Your task to perform on an android device: Open sound settings Image 0: 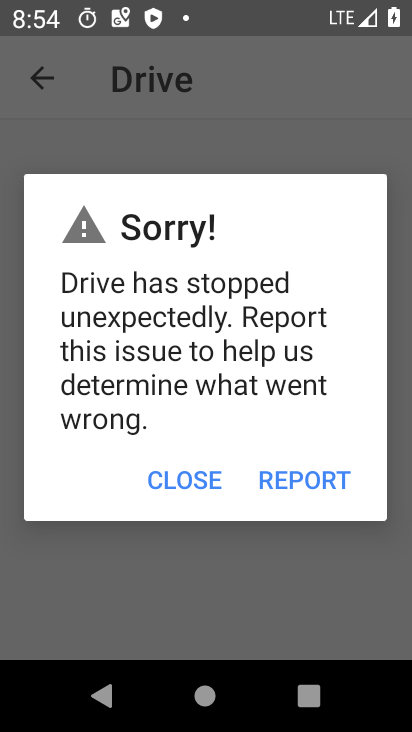
Step 0: press home button
Your task to perform on an android device: Open sound settings Image 1: 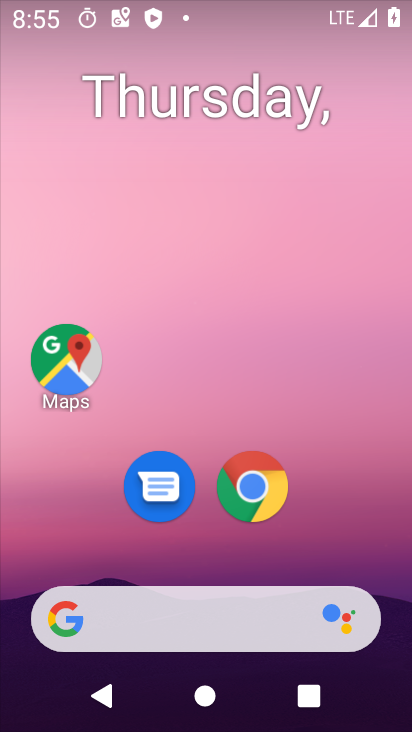
Step 1: drag from (235, 617) to (282, 11)
Your task to perform on an android device: Open sound settings Image 2: 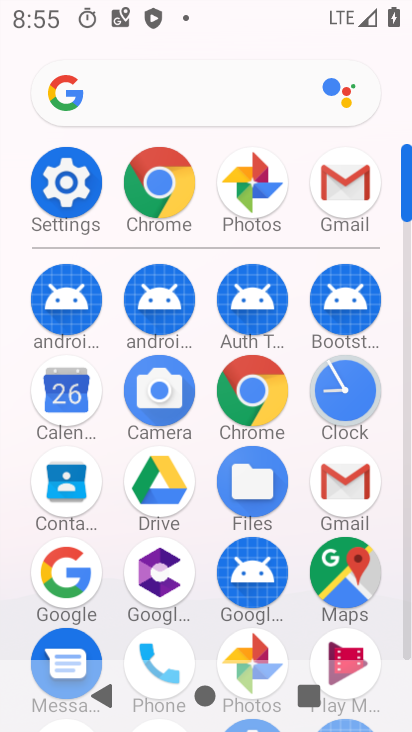
Step 2: click (68, 208)
Your task to perform on an android device: Open sound settings Image 3: 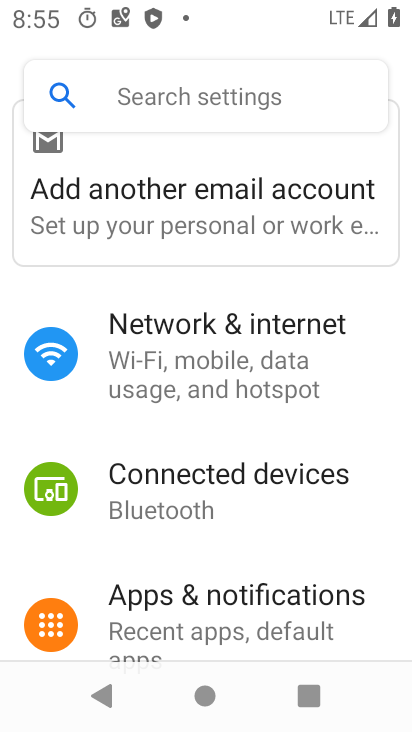
Step 3: drag from (252, 548) to (254, 224)
Your task to perform on an android device: Open sound settings Image 4: 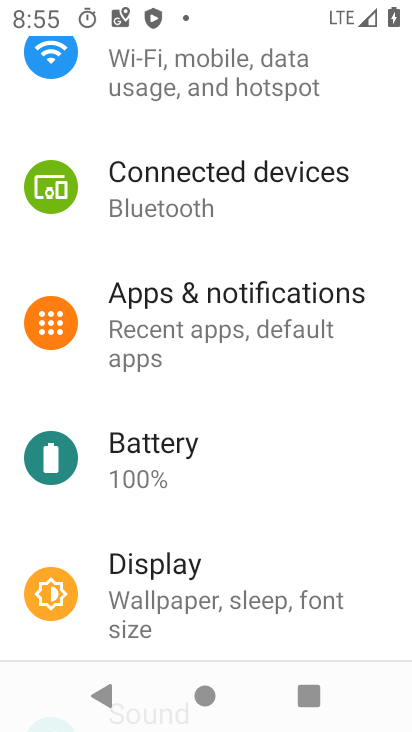
Step 4: drag from (238, 547) to (232, 260)
Your task to perform on an android device: Open sound settings Image 5: 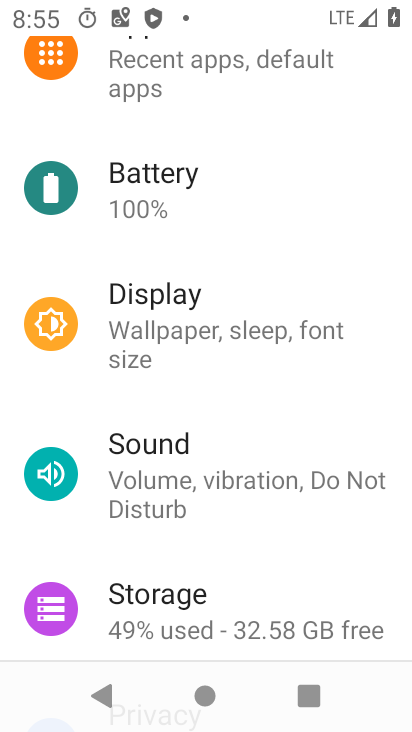
Step 5: click (191, 472)
Your task to perform on an android device: Open sound settings Image 6: 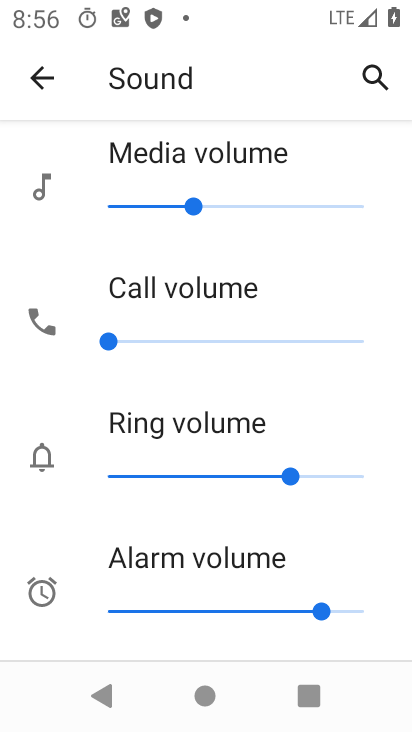
Step 6: task complete